Your task to perform on an android device: see creations saved in the google photos Image 0: 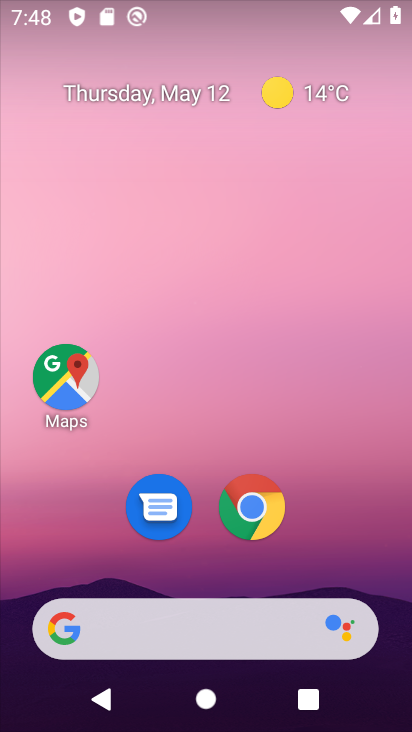
Step 0: drag from (309, 611) to (239, 91)
Your task to perform on an android device: see creations saved in the google photos Image 1: 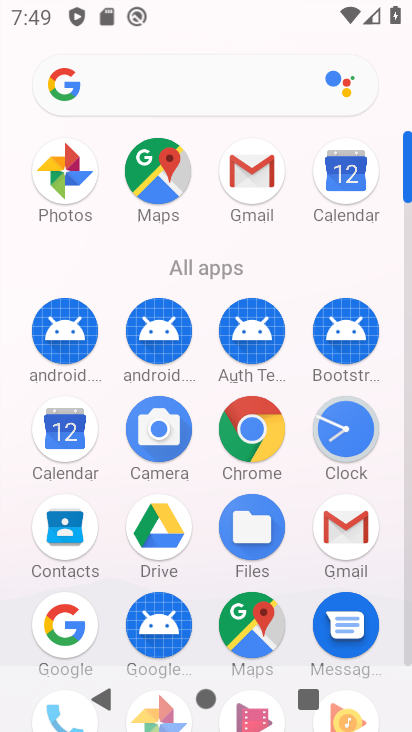
Step 1: click (57, 197)
Your task to perform on an android device: see creations saved in the google photos Image 2: 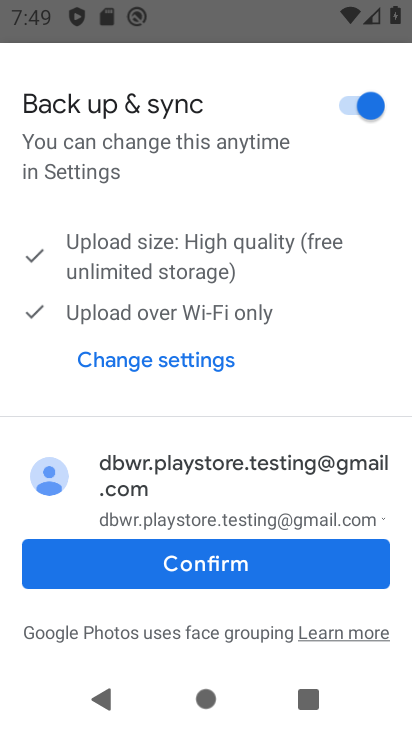
Step 2: click (279, 546)
Your task to perform on an android device: see creations saved in the google photos Image 3: 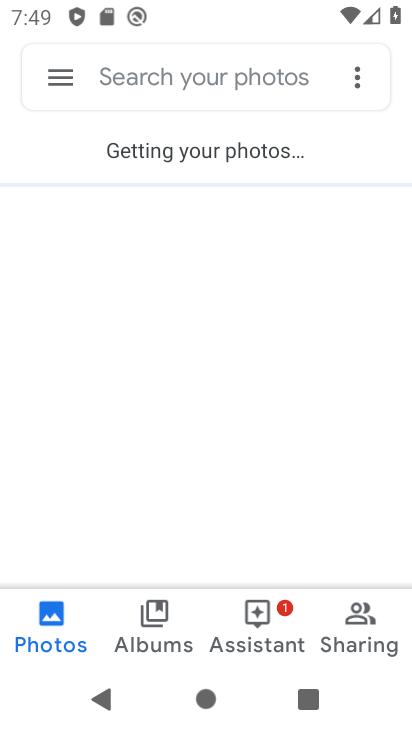
Step 3: click (185, 88)
Your task to perform on an android device: see creations saved in the google photos Image 4: 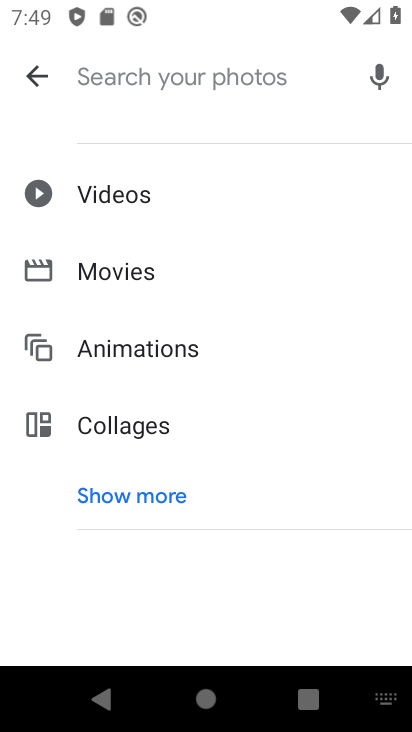
Step 4: click (170, 497)
Your task to perform on an android device: see creations saved in the google photos Image 5: 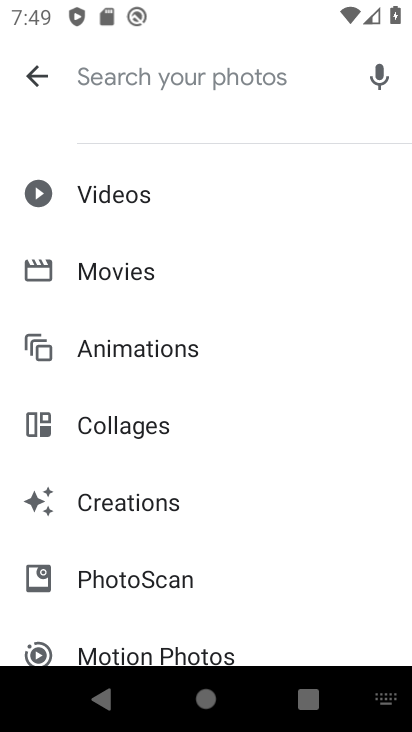
Step 5: click (169, 501)
Your task to perform on an android device: see creations saved in the google photos Image 6: 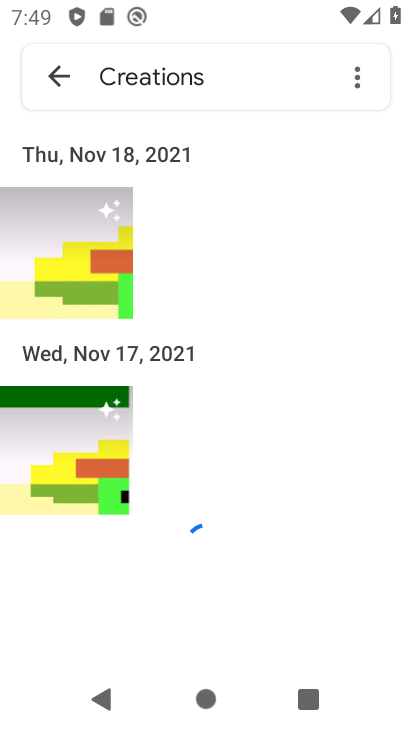
Step 6: task complete